Your task to perform on an android device: check data usage Image 0: 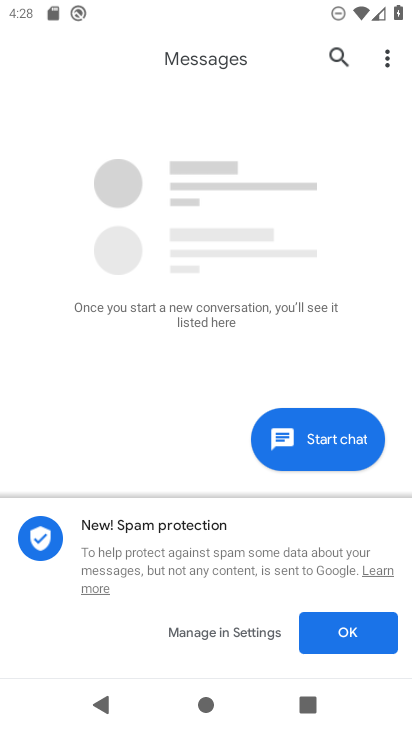
Step 0: press home button
Your task to perform on an android device: check data usage Image 1: 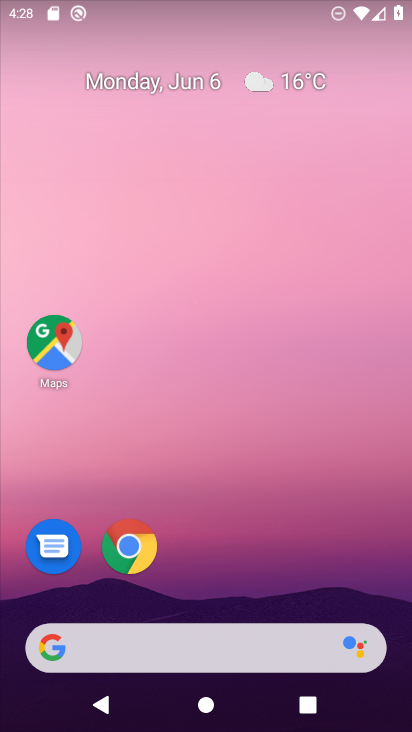
Step 1: drag from (220, 598) to (252, 5)
Your task to perform on an android device: check data usage Image 2: 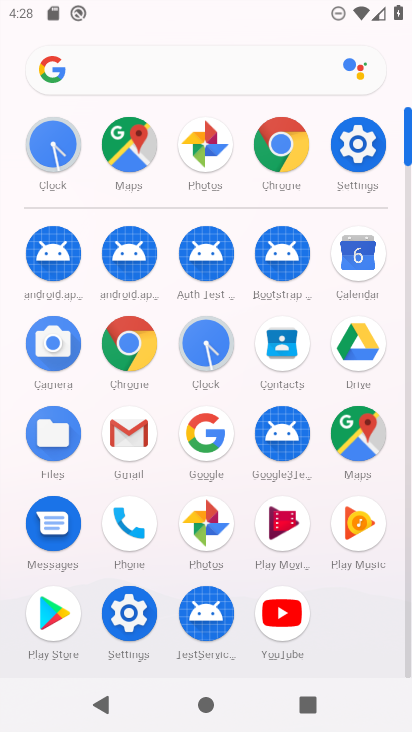
Step 2: click (352, 175)
Your task to perform on an android device: check data usage Image 3: 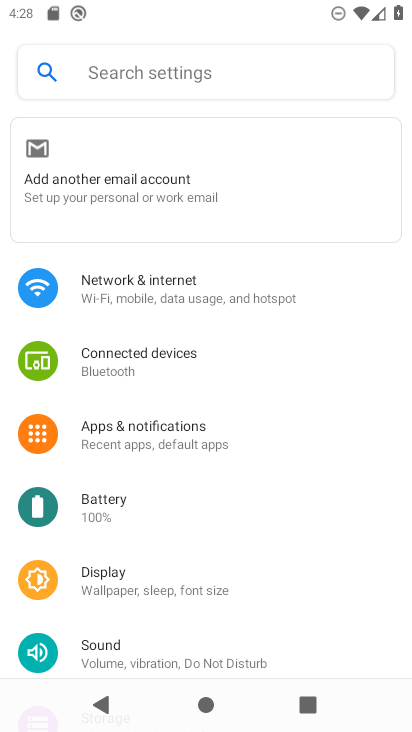
Step 3: click (170, 177)
Your task to perform on an android device: check data usage Image 4: 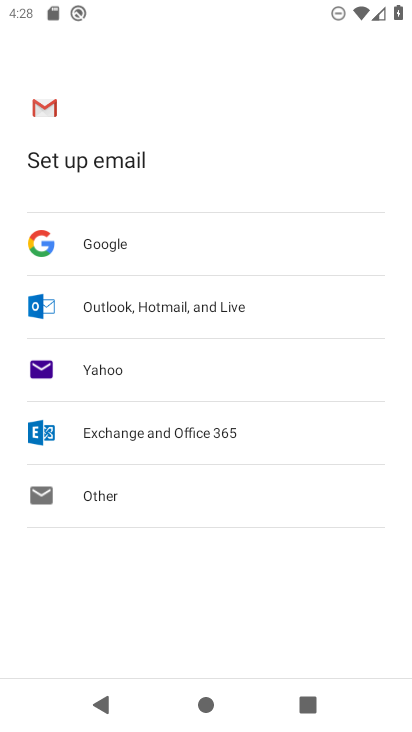
Step 4: press back button
Your task to perform on an android device: check data usage Image 5: 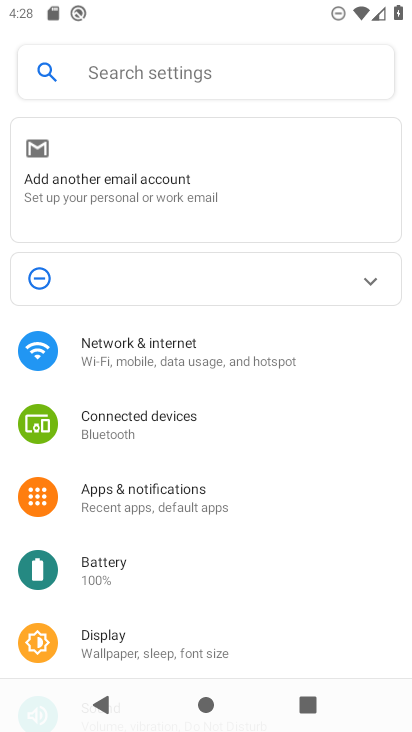
Step 5: click (144, 337)
Your task to perform on an android device: check data usage Image 6: 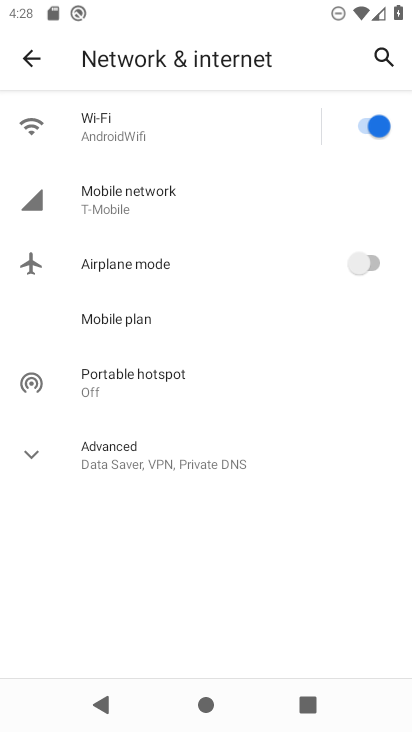
Step 6: click (128, 215)
Your task to perform on an android device: check data usage Image 7: 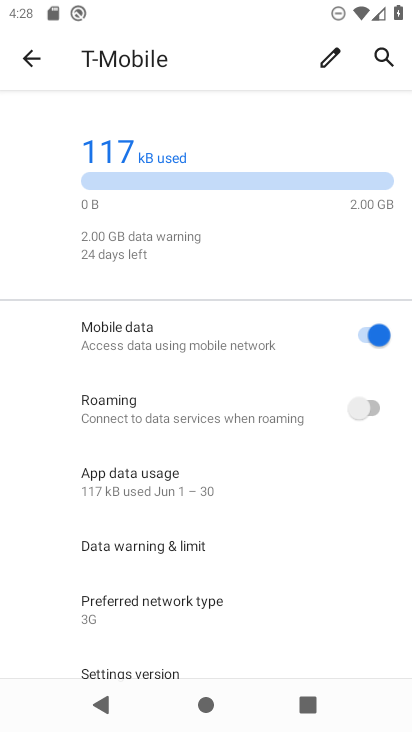
Step 7: task complete